Your task to perform on an android device: empty trash in the gmail app Image 0: 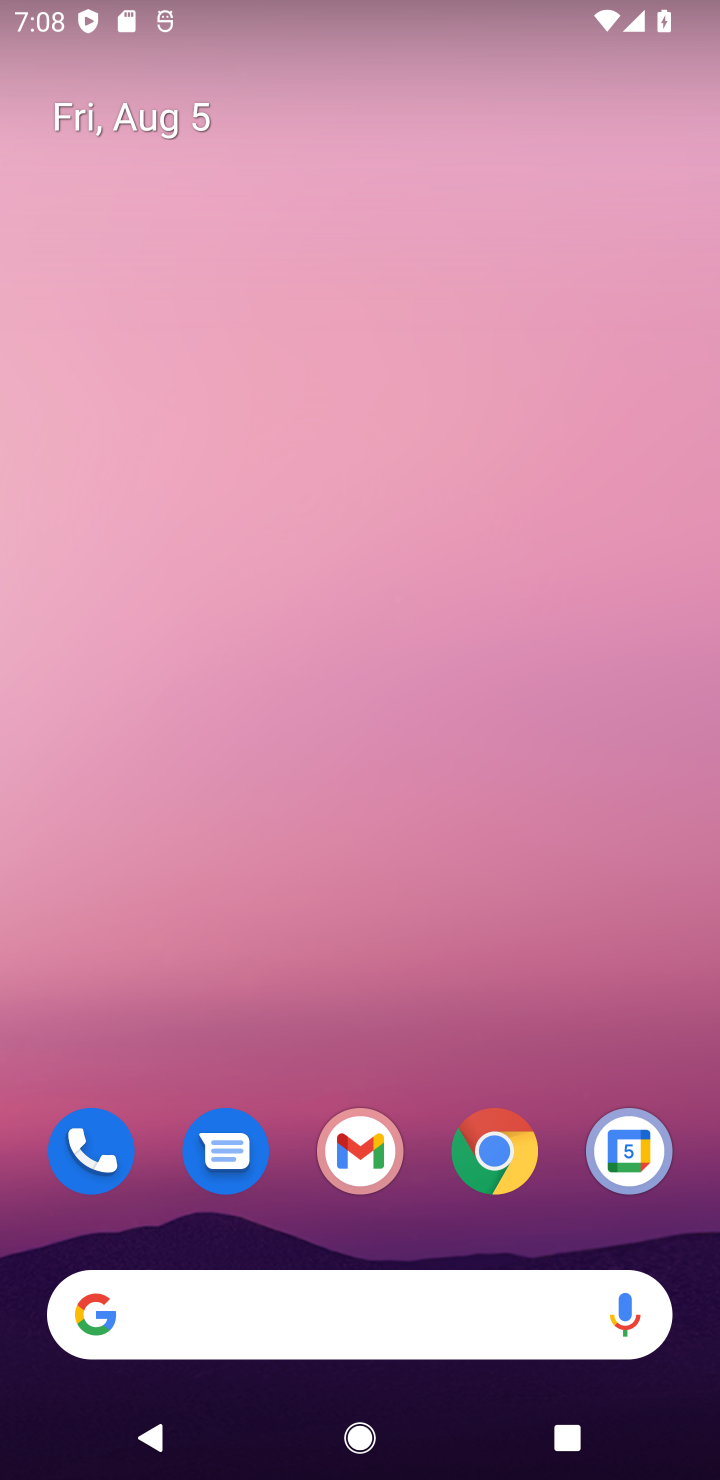
Step 0: drag from (336, 1231) to (309, 7)
Your task to perform on an android device: empty trash in the gmail app Image 1: 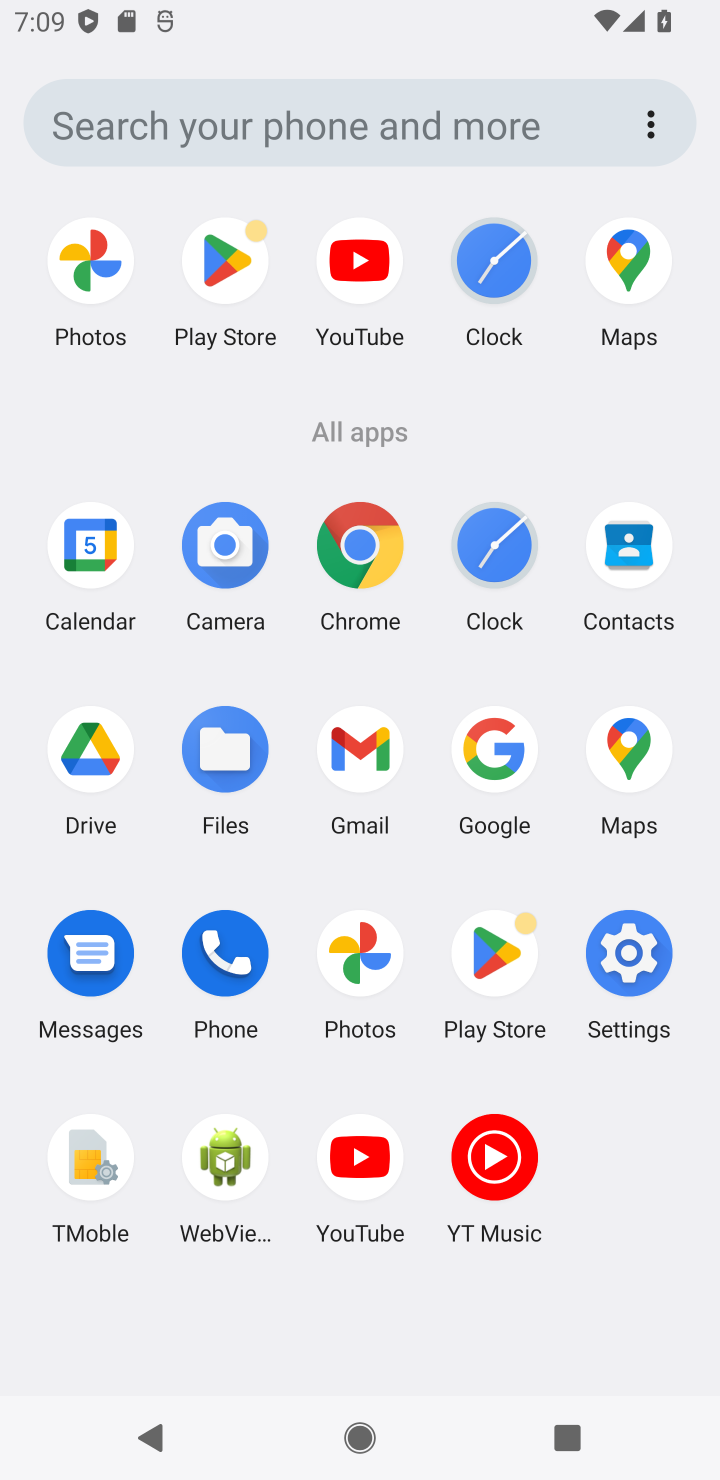
Step 1: click (357, 781)
Your task to perform on an android device: empty trash in the gmail app Image 2: 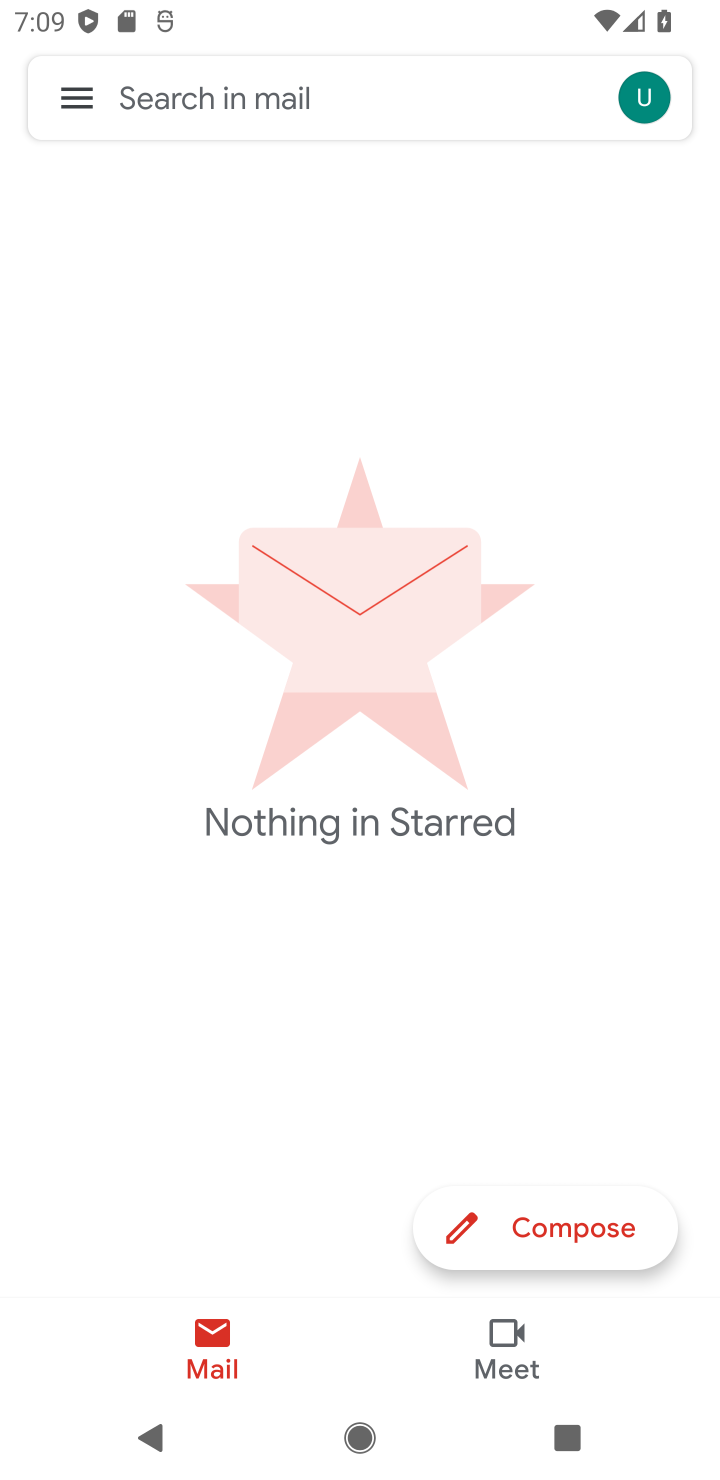
Step 2: click (66, 91)
Your task to perform on an android device: empty trash in the gmail app Image 3: 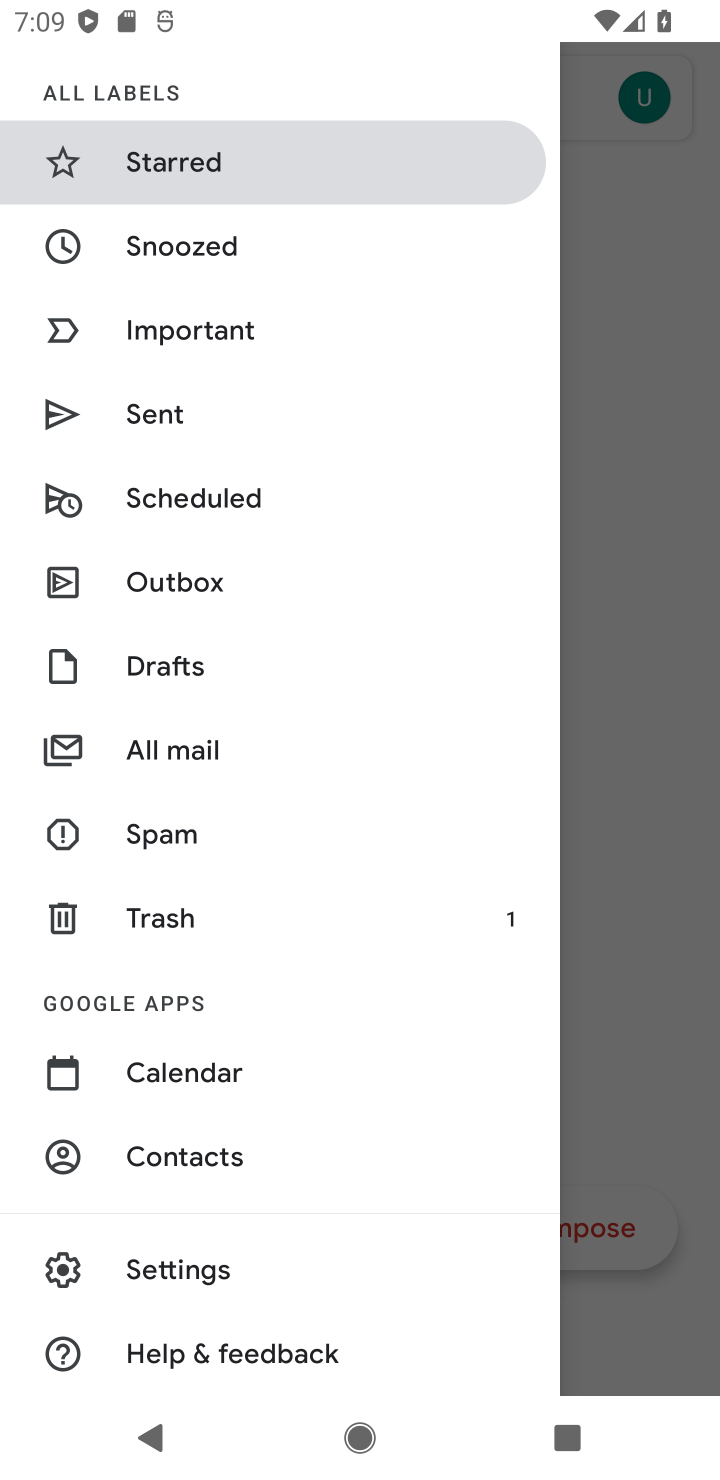
Step 3: click (160, 903)
Your task to perform on an android device: empty trash in the gmail app Image 4: 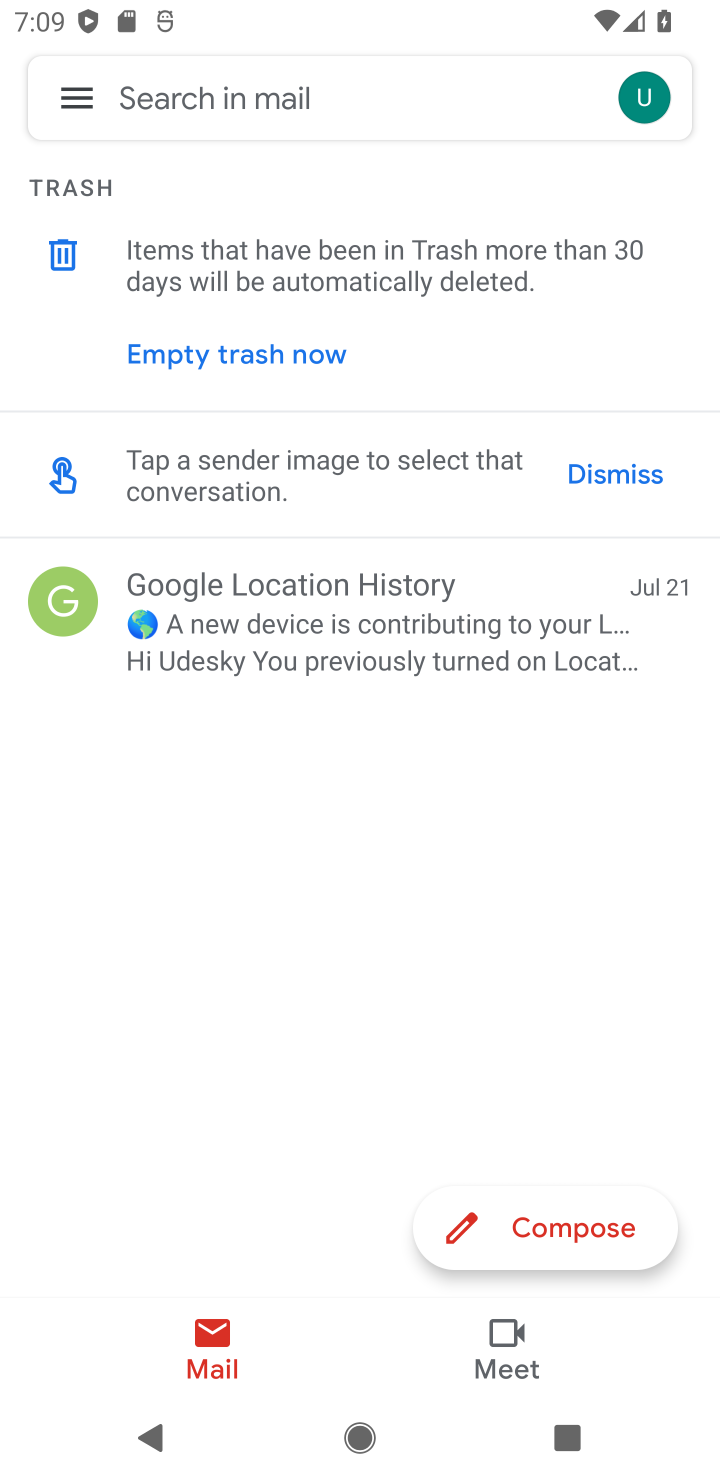
Step 4: click (265, 352)
Your task to perform on an android device: empty trash in the gmail app Image 5: 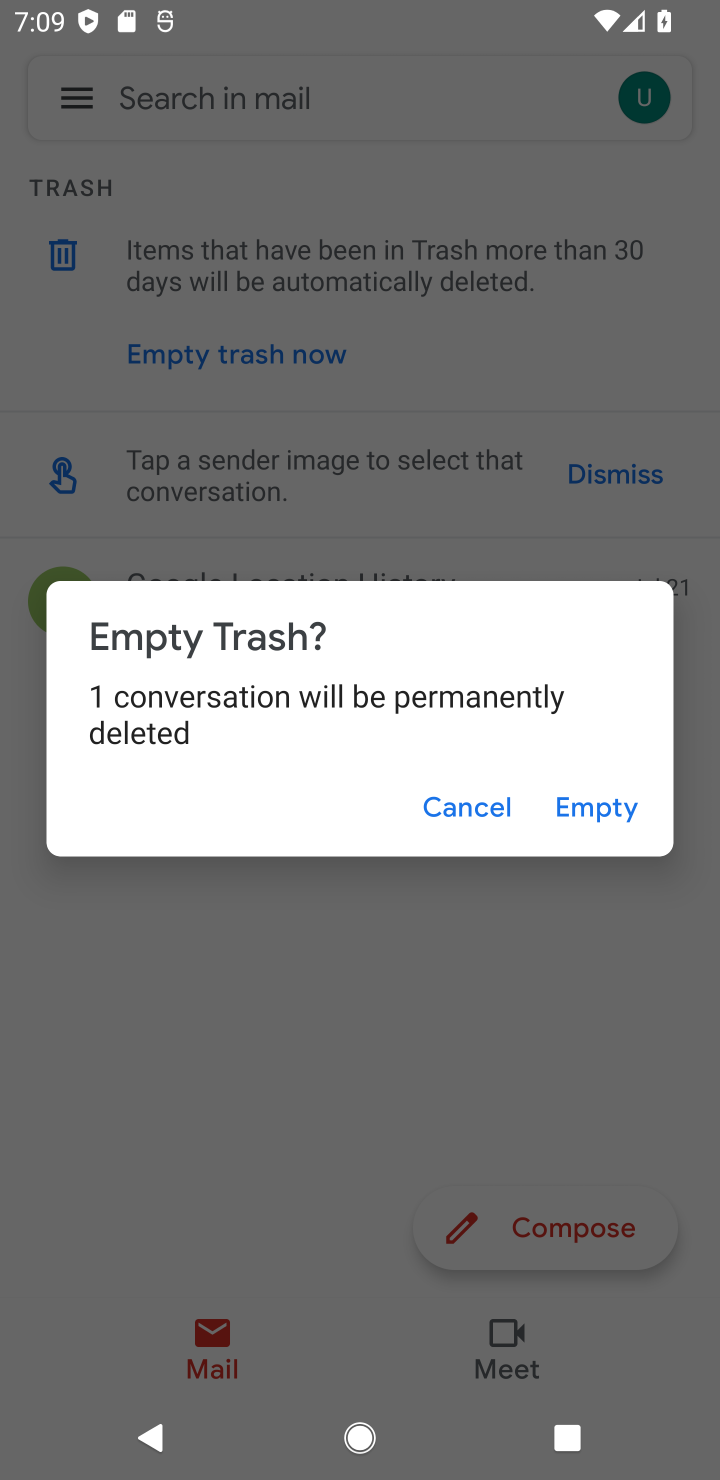
Step 5: click (622, 783)
Your task to perform on an android device: empty trash in the gmail app Image 6: 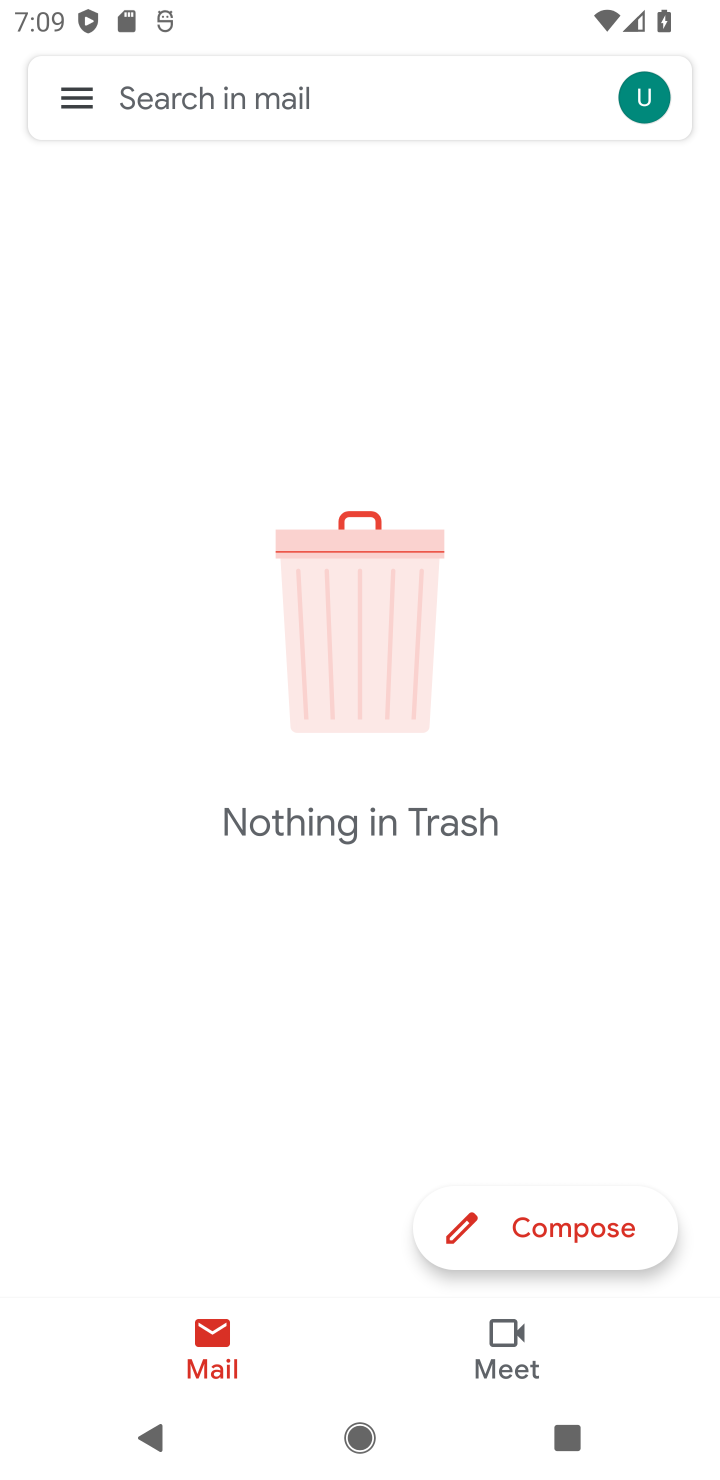
Step 6: task complete